Your task to perform on an android device: allow notifications from all sites in the chrome app Image 0: 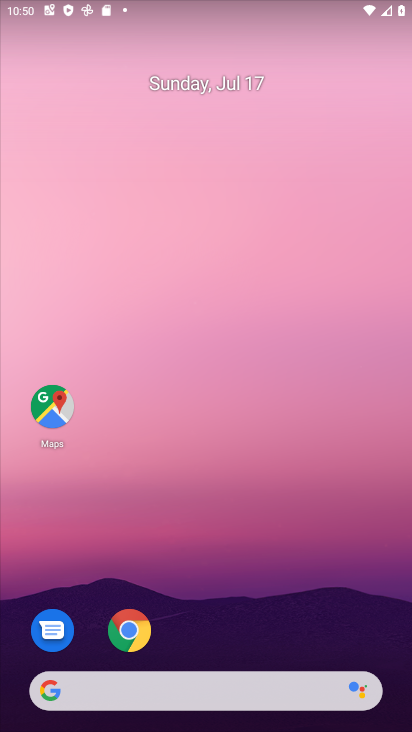
Step 0: drag from (271, 649) to (231, 97)
Your task to perform on an android device: allow notifications from all sites in the chrome app Image 1: 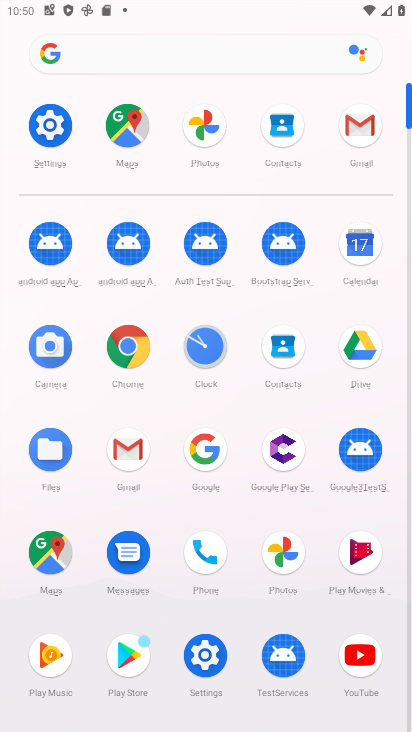
Step 1: click (133, 354)
Your task to perform on an android device: allow notifications from all sites in the chrome app Image 2: 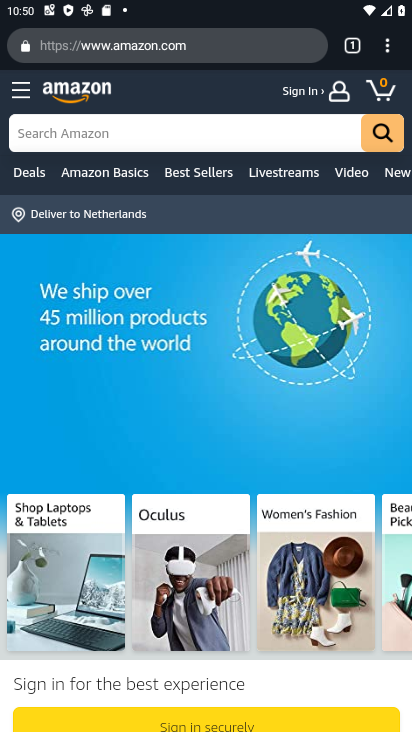
Step 2: click (395, 47)
Your task to perform on an android device: allow notifications from all sites in the chrome app Image 3: 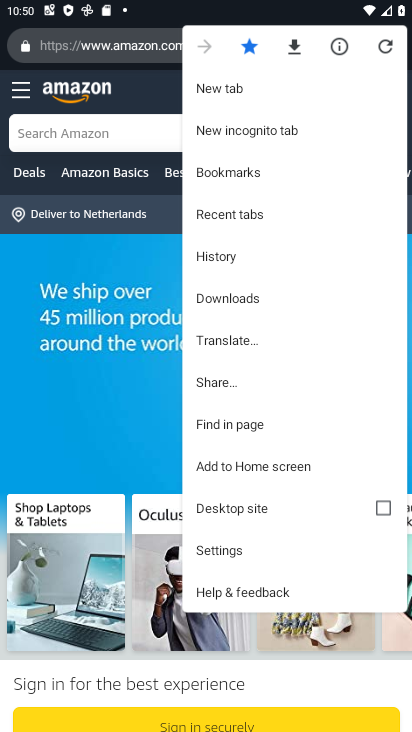
Step 3: click (209, 538)
Your task to perform on an android device: allow notifications from all sites in the chrome app Image 4: 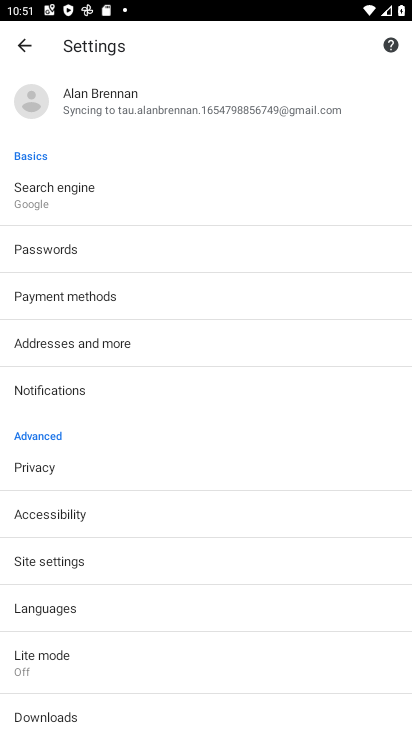
Step 4: task complete